Your task to perform on an android device: see creations saved in the google photos Image 0: 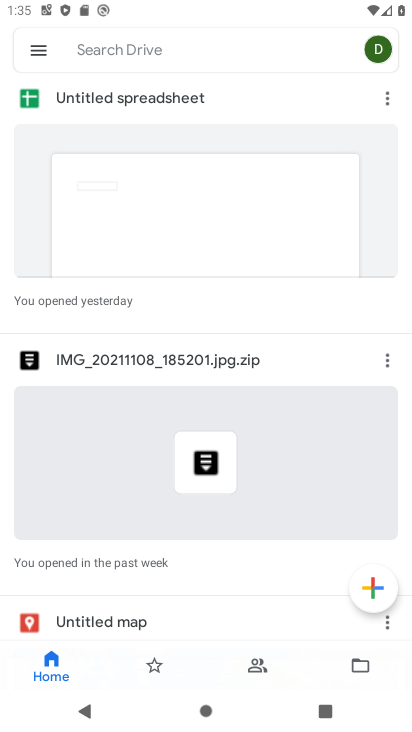
Step 0: press home button
Your task to perform on an android device: see creations saved in the google photos Image 1: 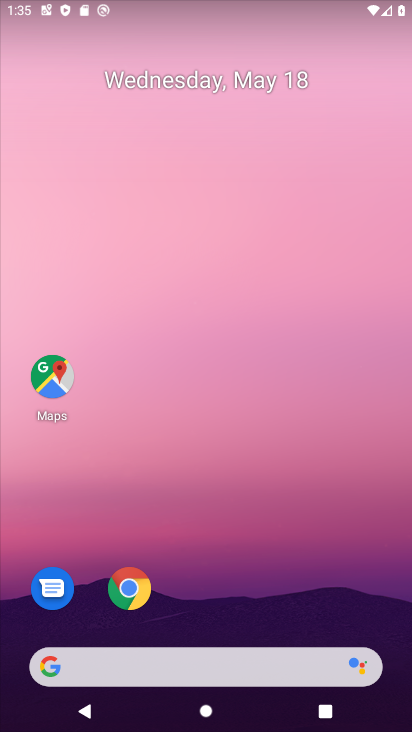
Step 1: drag from (329, 576) to (332, 127)
Your task to perform on an android device: see creations saved in the google photos Image 2: 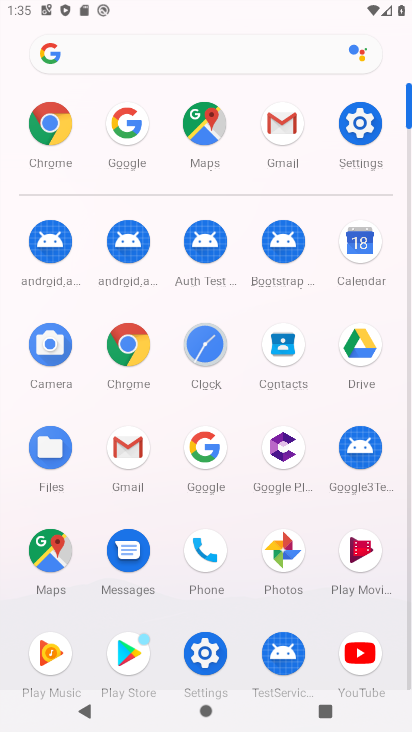
Step 2: drag from (244, 608) to (237, 319)
Your task to perform on an android device: see creations saved in the google photos Image 3: 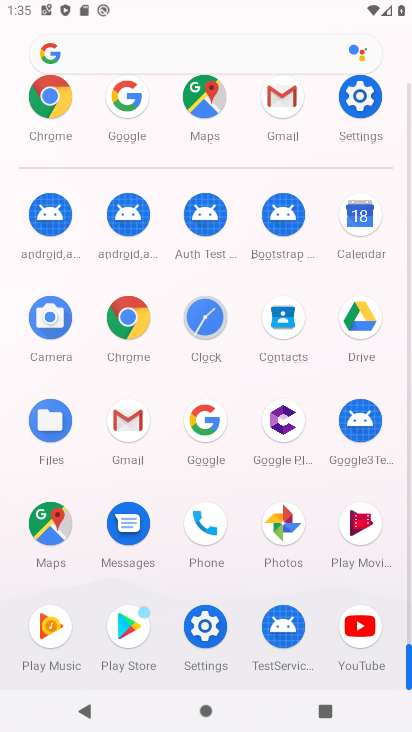
Step 3: click (278, 534)
Your task to perform on an android device: see creations saved in the google photos Image 4: 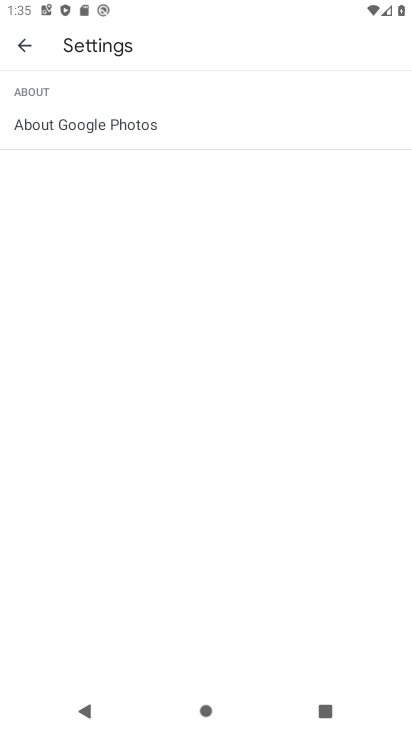
Step 4: click (26, 46)
Your task to perform on an android device: see creations saved in the google photos Image 5: 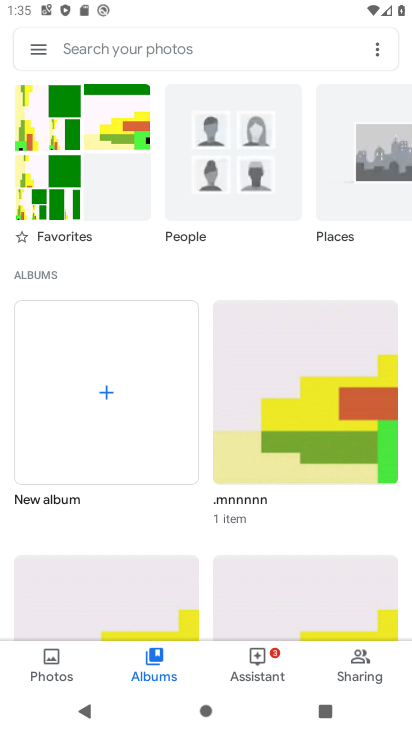
Step 5: click (207, 40)
Your task to perform on an android device: see creations saved in the google photos Image 6: 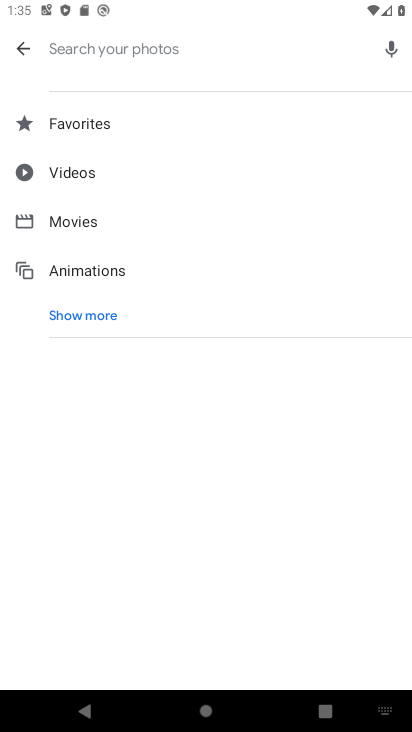
Step 6: click (107, 316)
Your task to perform on an android device: see creations saved in the google photos Image 7: 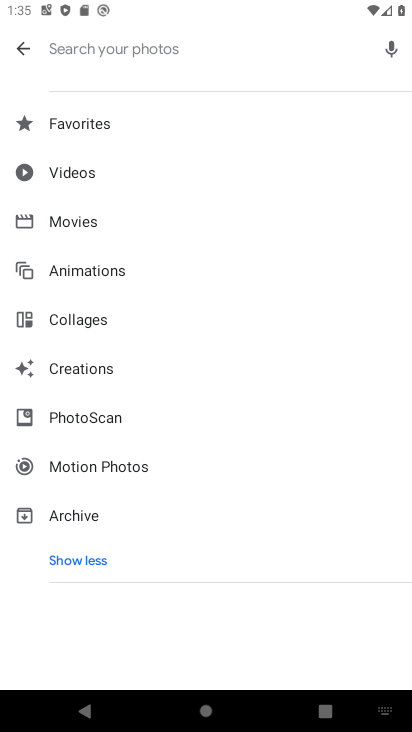
Step 7: drag from (186, 524) to (205, 321)
Your task to perform on an android device: see creations saved in the google photos Image 8: 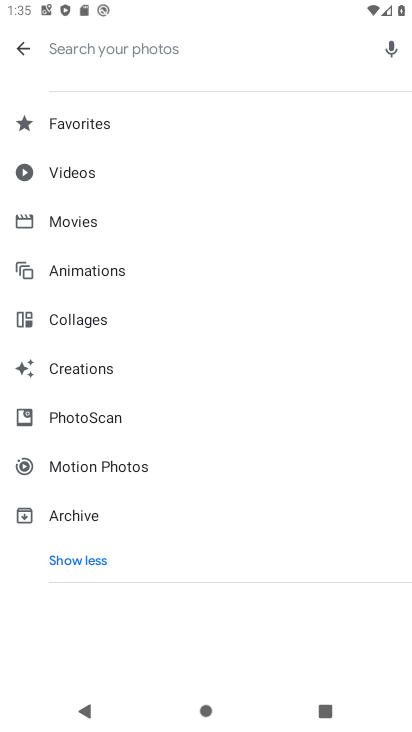
Step 8: click (170, 370)
Your task to perform on an android device: see creations saved in the google photos Image 9: 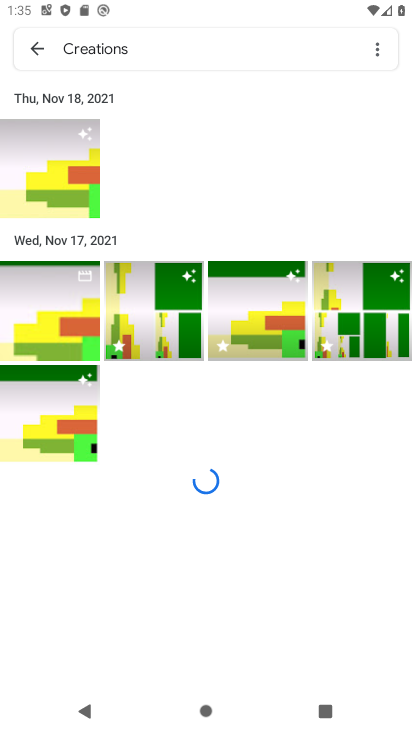
Step 9: click (60, 161)
Your task to perform on an android device: see creations saved in the google photos Image 10: 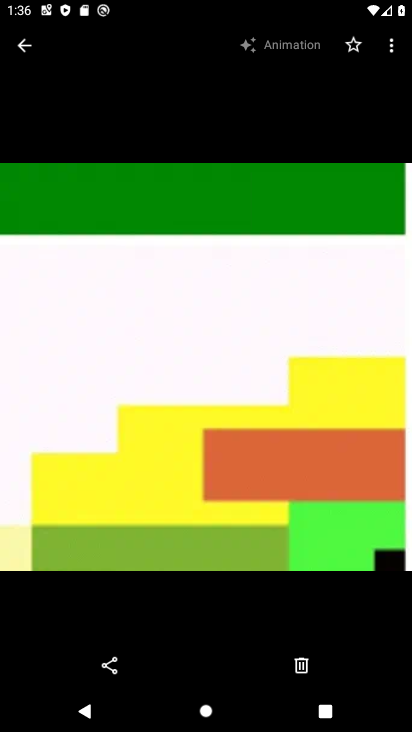
Step 10: task complete